Your task to perform on an android device: Play the last video I watched on Youtube Image 0: 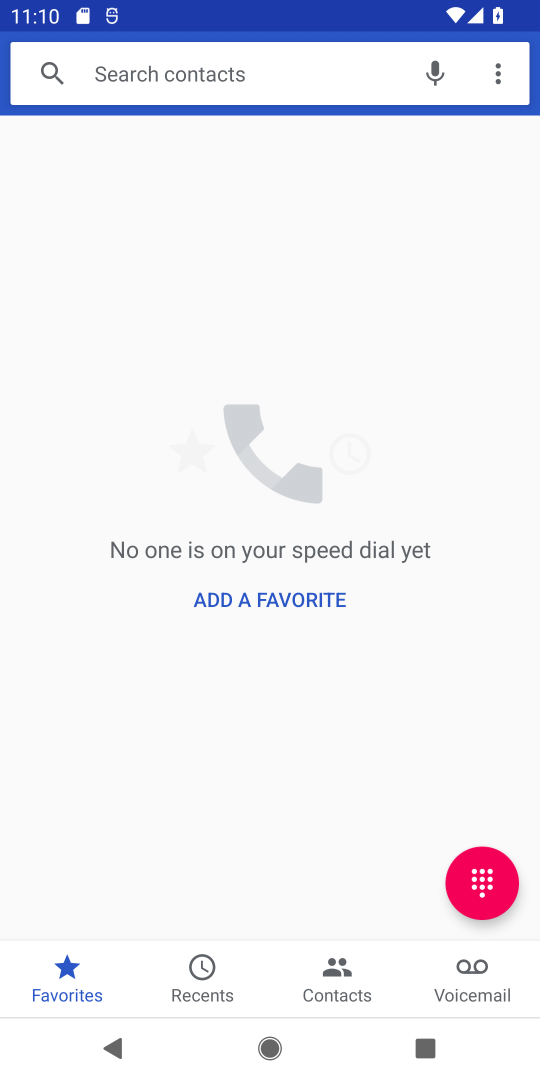
Step 0: press home button
Your task to perform on an android device: Play the last video I watched on Youtube Image 1: 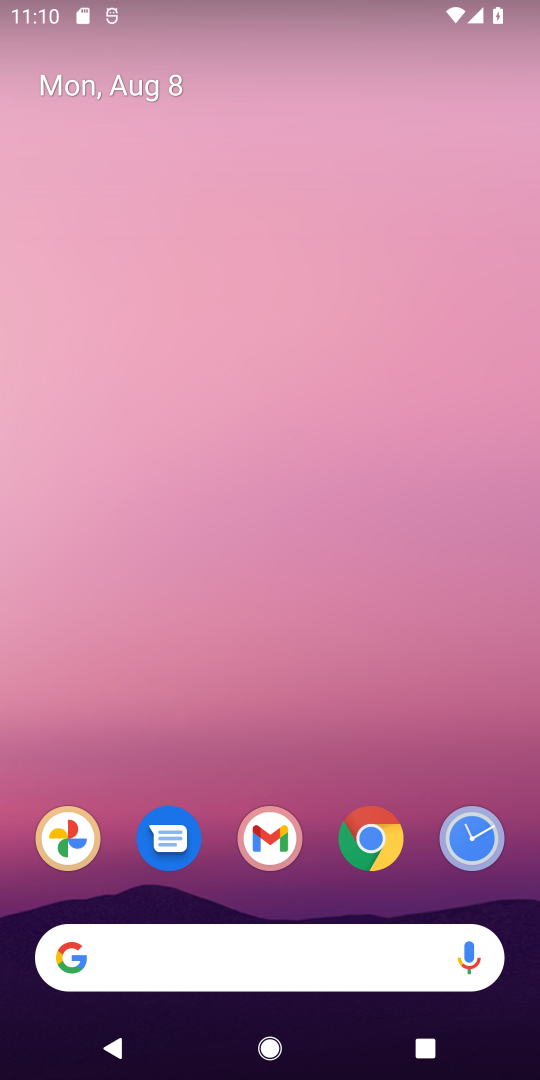
Step 1: drag from (330, 769) to (321, 132)
Your task to perform on an android device: Play the last video I watched on Youtube Image 2: 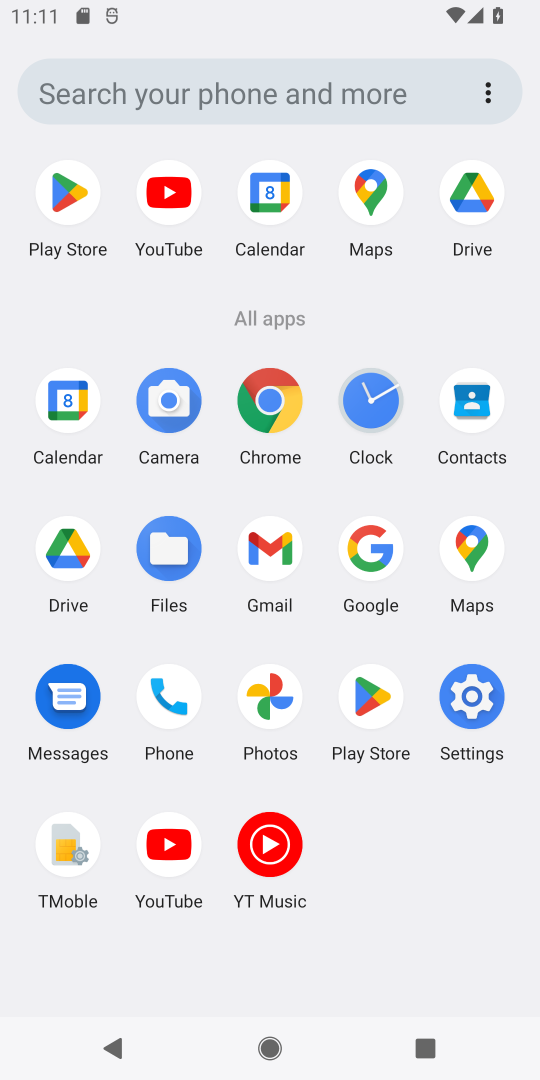
Step 2: click (163, 840)
Your task to perform on an android device: Play the last video I watched on Youtube Image 3: 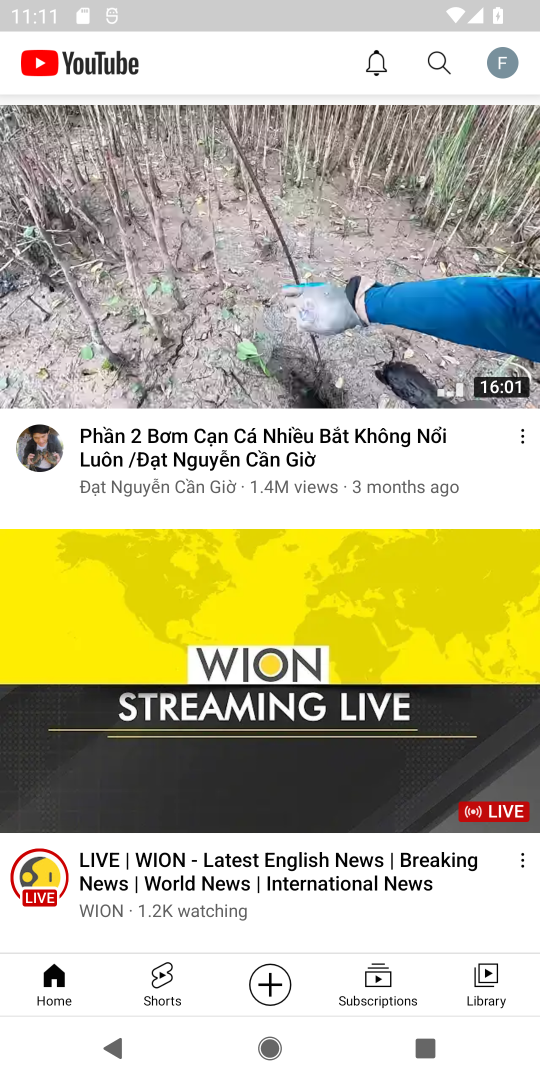
Step 3: click (502, 973)
Your task to perform on an android device: Play the last video I watched on Youtube Image 4: 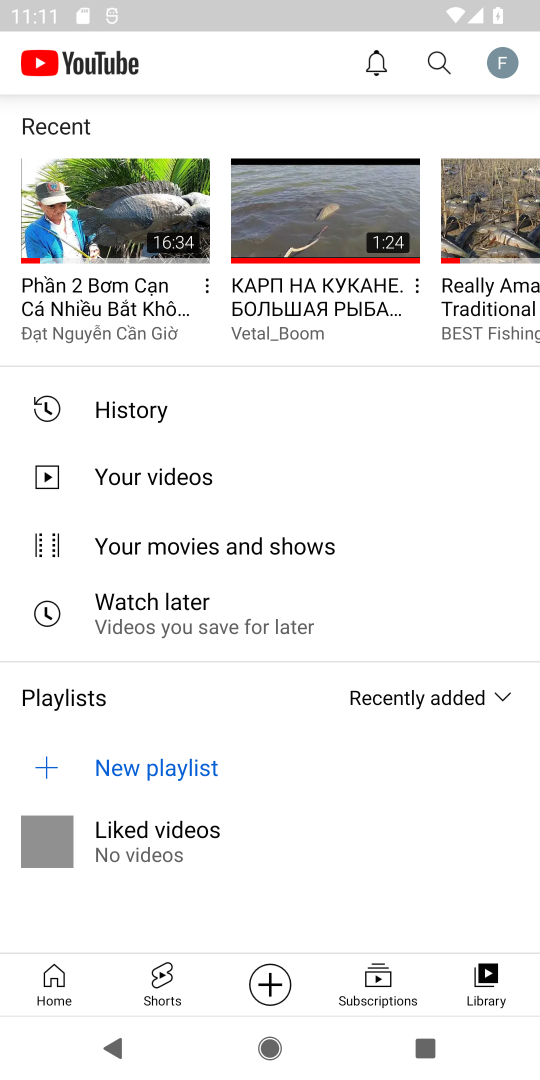
Step 4: click (138, 311)
Your task to perform on an android device: Play the last video I watched on Youtube Image 5: 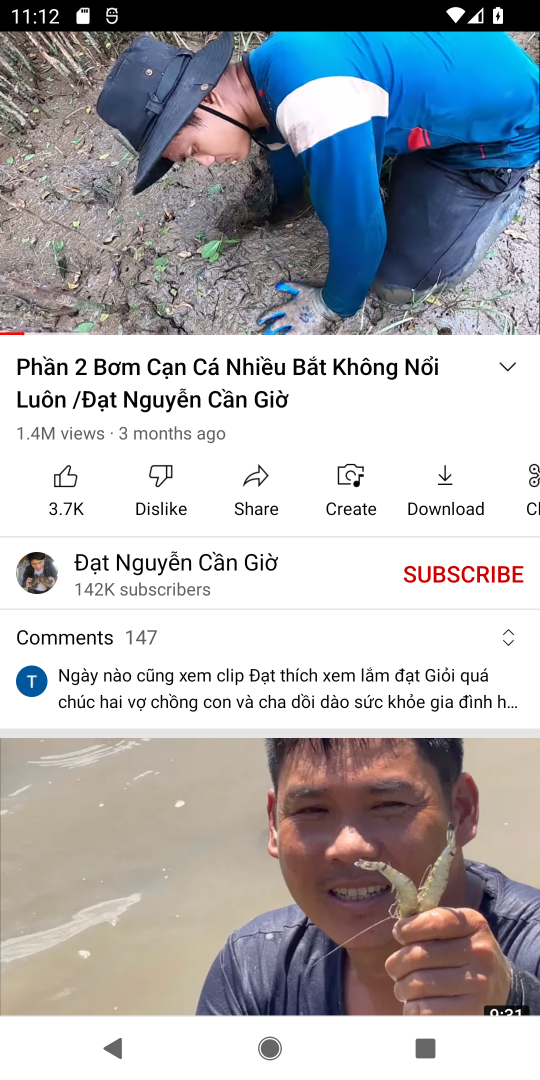
Step 5: task complete